Your task to perform on an android device: turn off smart reply in the gmail app Image 0: 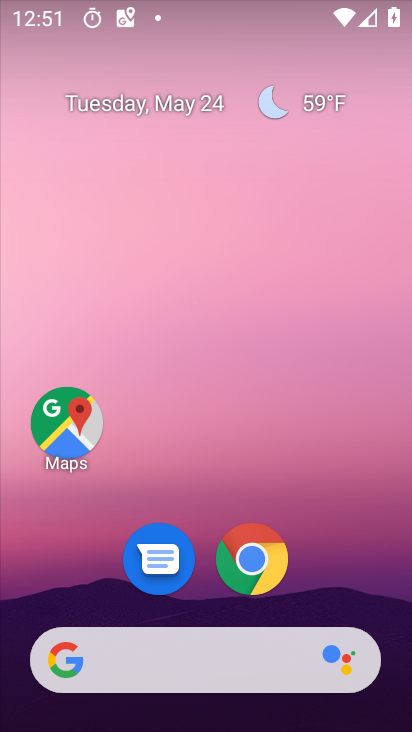
Step 0: drag from (399, 694) to (263, 30)
Your task to perform on an android device: turn off smart reply in the gmail app Image 1: 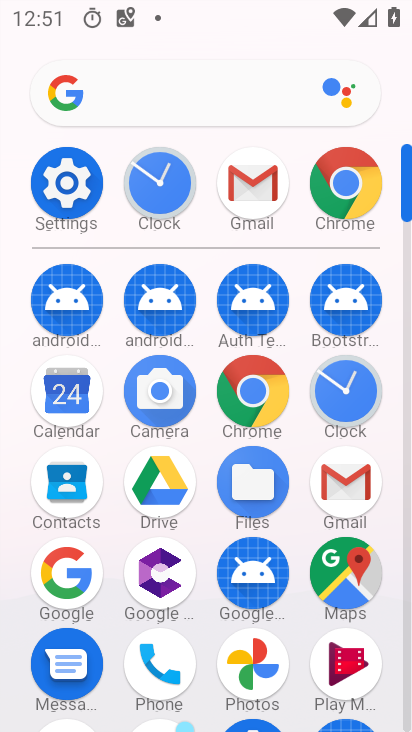
Step 1: click (327, 481)
Your task to perform on an android device: turn off smart reply in the gmail app Image 2: 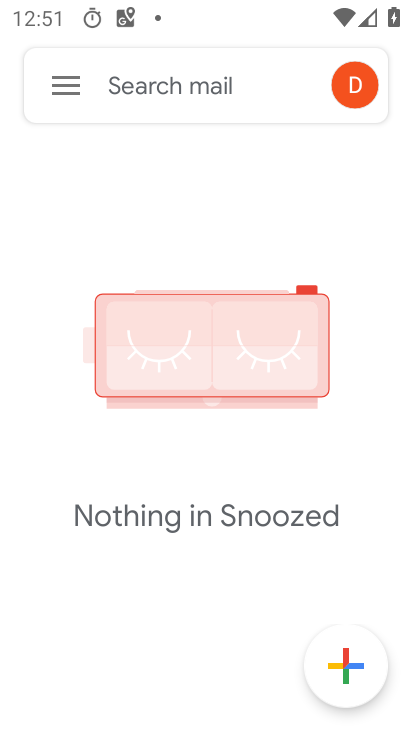
Step 2: click (73, 84)
Your task to perform on an android device: turn off smart reply in the gmail app Image 3: 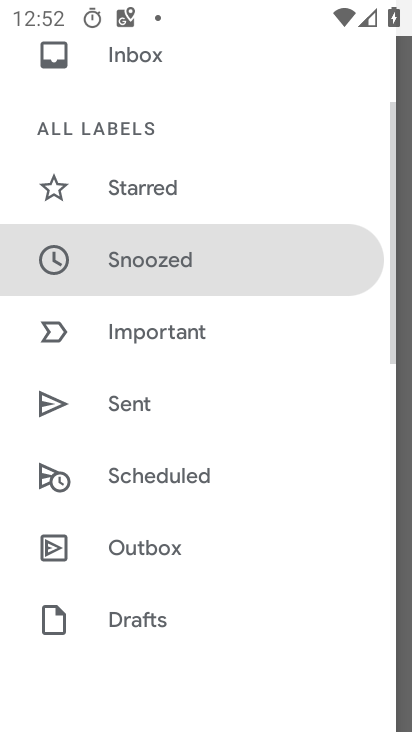
Step 3: drag from (264, 671) to (267, 244)
Your task to perform on an android device: turn off smart reply in the gmail app Image 4: 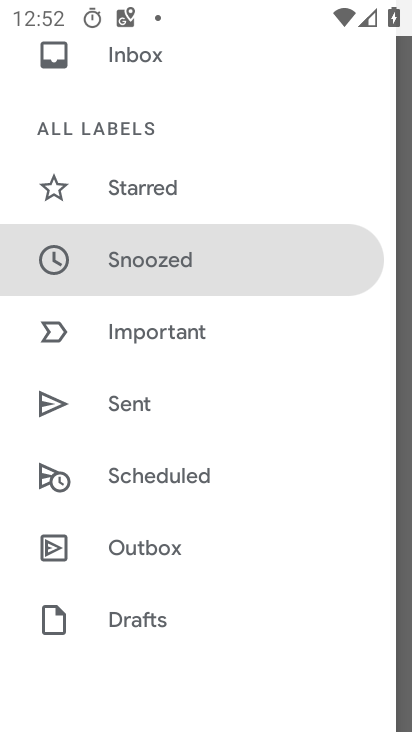
Step 4: drag from (301, 621) to (262, 194)
Your task to perform on an android device: turn off smart reply in the gmail app Image 5: 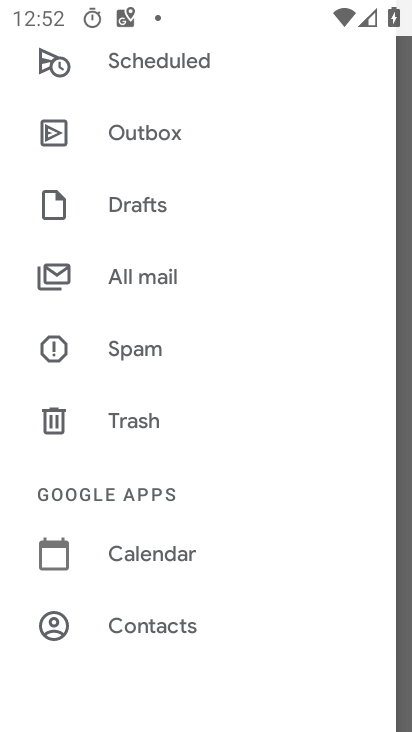
Step 5: drag from (270, 631) to (267, 274)
Your task to perform on an android device: turn off smart reply in the gmail app Image 6: 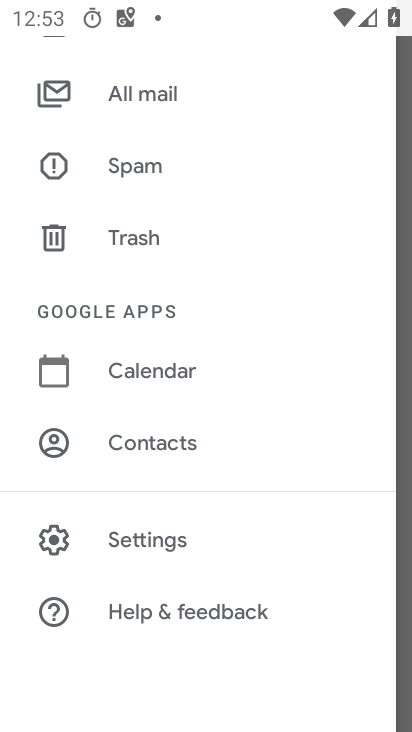
Step 6: click (159, 533)
Your task to perform on an android device: turn off smart reply in the gmail app Image 7: 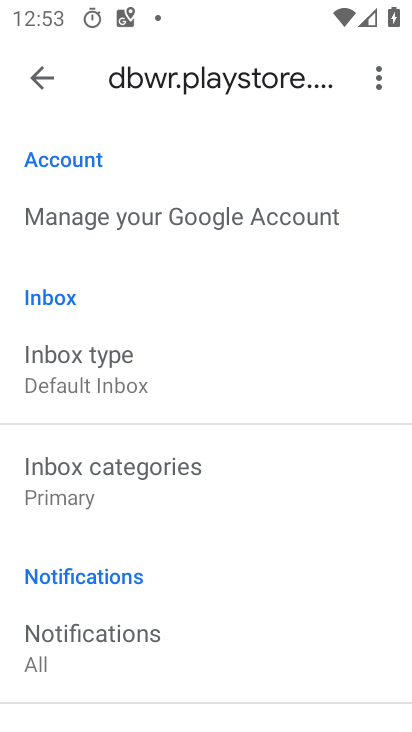
Step 7: drag from (246, 612) to (223, 286)
Your task to perform on an android device: turn off smart reply in the gmail app Image 8: 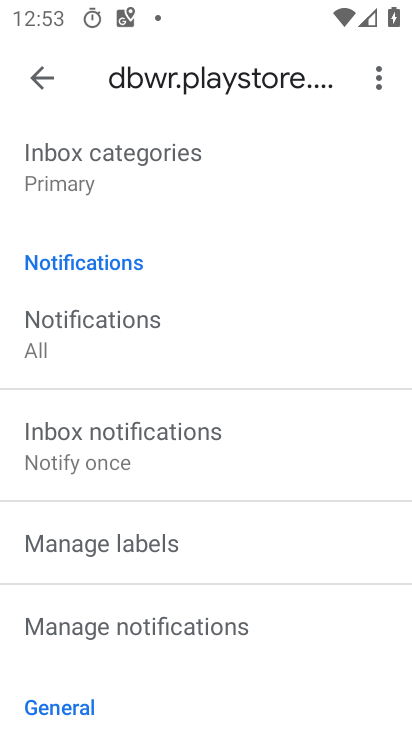
Step 8: drag from (266, 666) to (281, 412)
Your task to perform on an android device: turn off smart reply in the gmail app Image 9: 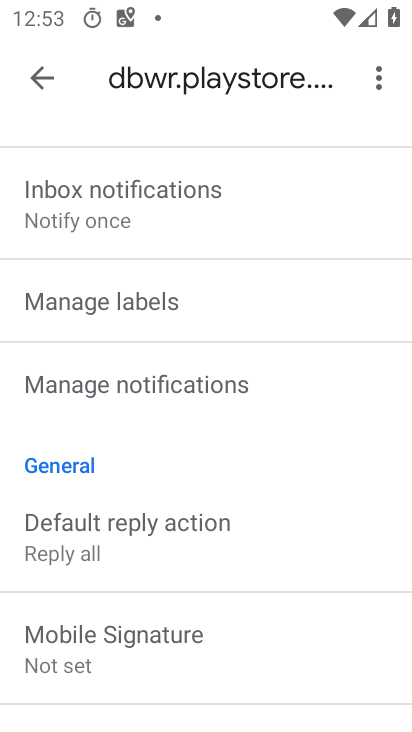
Step 9: drag from (300, 247) to (339, 598)
Your task to perform on an android device: turn off smart reply in the gmail app Image 10: 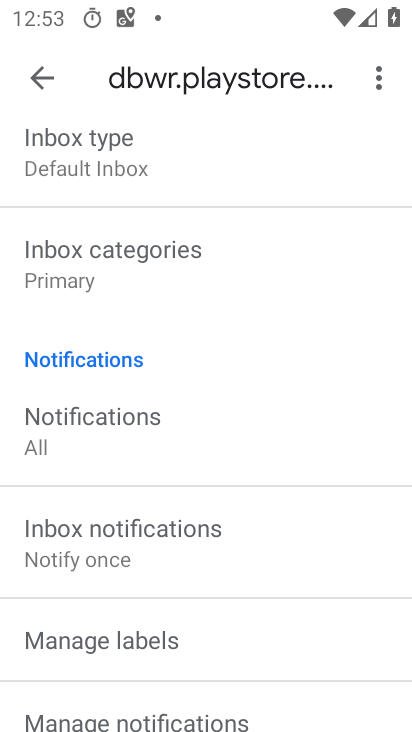
Step 10: drag from (329, 672) to (305, 267)
Your task to perform on an android device: turn off smart reply in the gmail app Image 11: 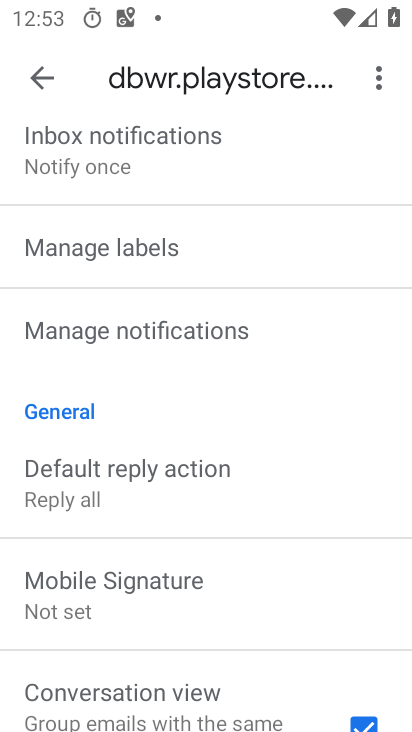
Step 11: drag from (256, 686) to (269, 371)
Your task to perform on an android device: turn off smart reply in the gmail app Image 12: 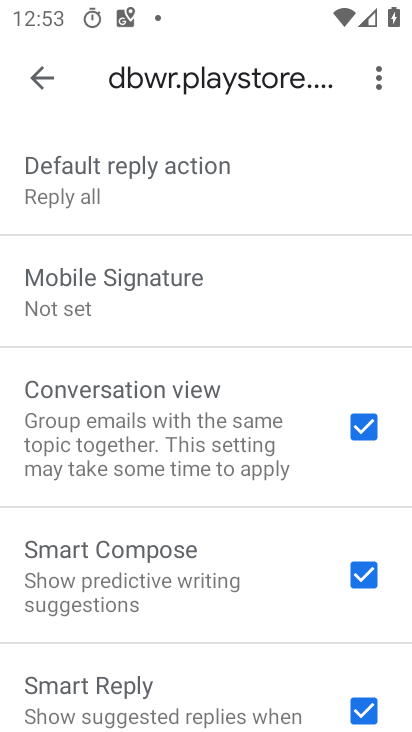
Step 12: drag from (261, 683) to (264, 452)
Your task to perform on an android device: turn off smart reply in the gmail app Image 13: 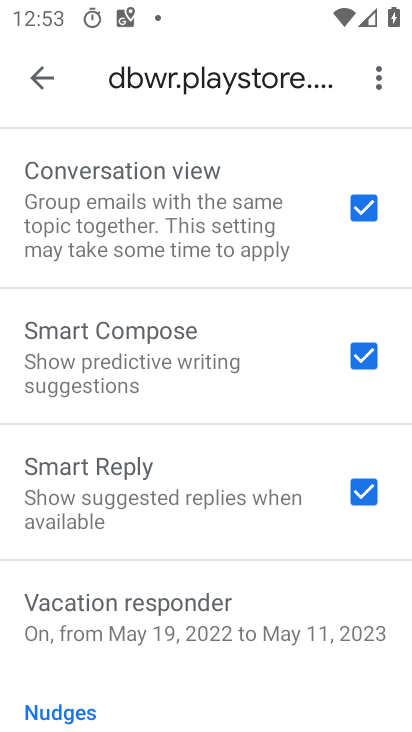
Step 13: click (349, 486)
Your task to perform on an android device: turn off smart reply in the gmail app Image 14: 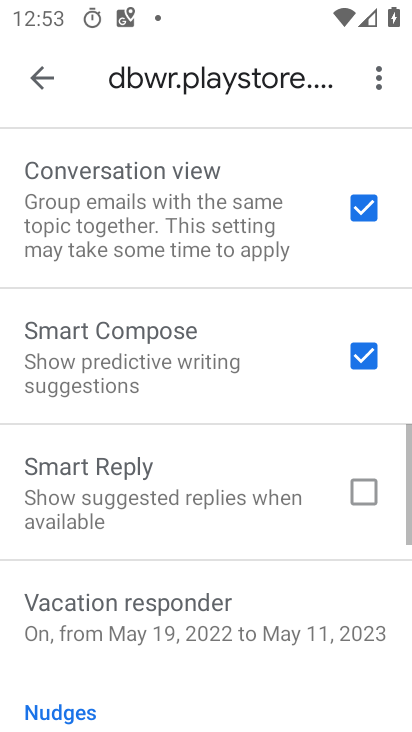
Step 14: task complete